Your task to perform on an android device: turn notification dots off Image 0: 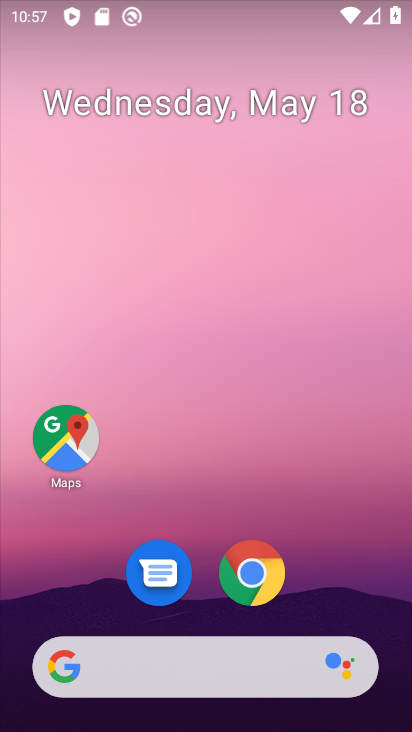
Step 0: click (176, 93)
Your task to perform on an android device: turn notification dots off Image 1: 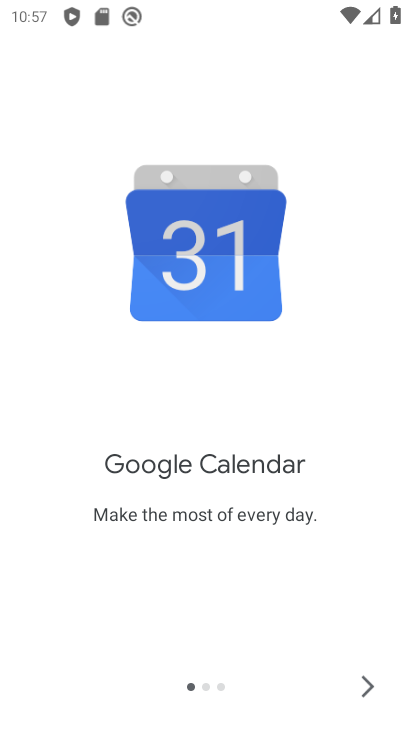
Step 1: click (368, 681)
Your task to perform on an android device: turn notification dots off Image 2: 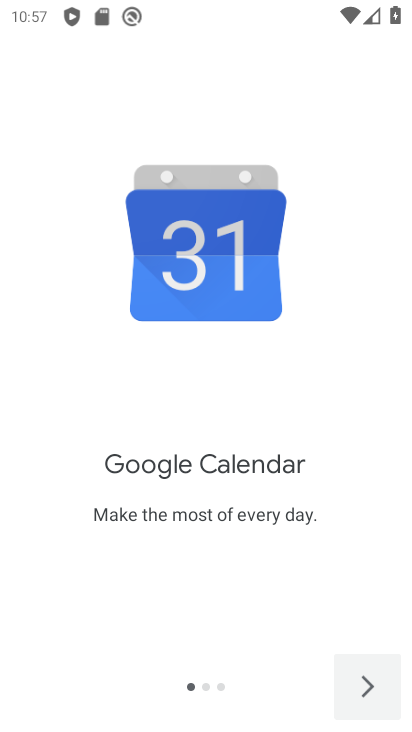
Step 2: click (368, 682)
Your task to perform on an android device: turn notification dots off Image 3: 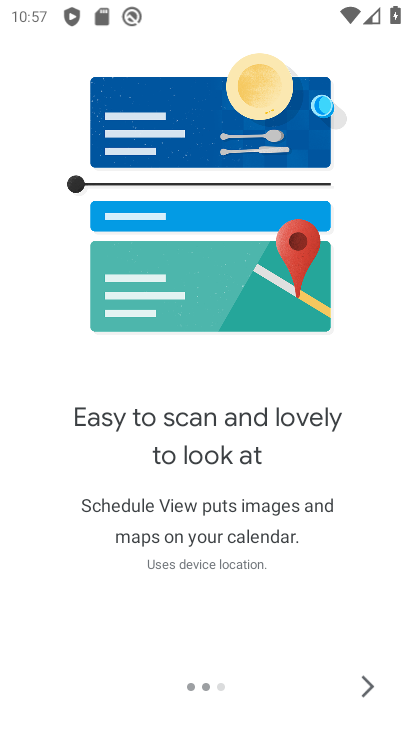
Step 3: click (368, 682)
Your task to perform on an android device: turn notification dots off Image 4: 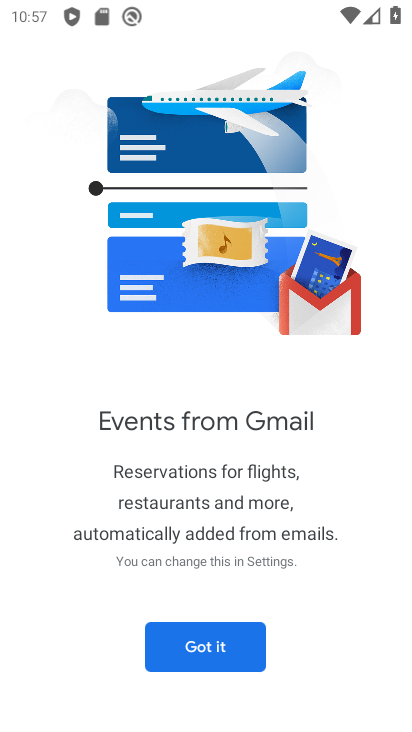
Step 4: click (219, 654)
Your task to perform on an android device: turn notification dots off Image 5: 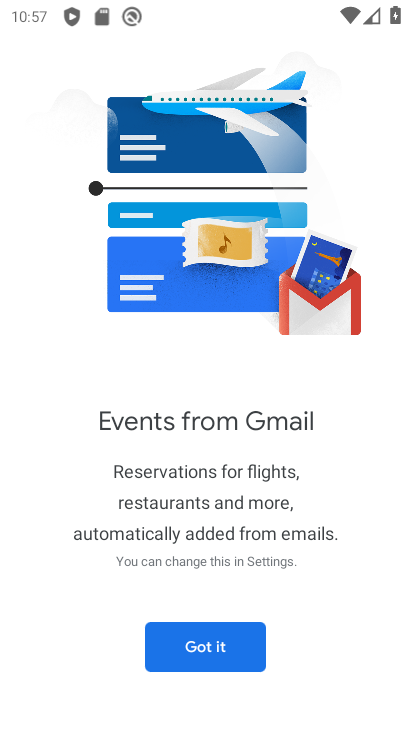
Step 5: click (219, 649)
Your task to perform on an android device: turn notification dots off Image 6: 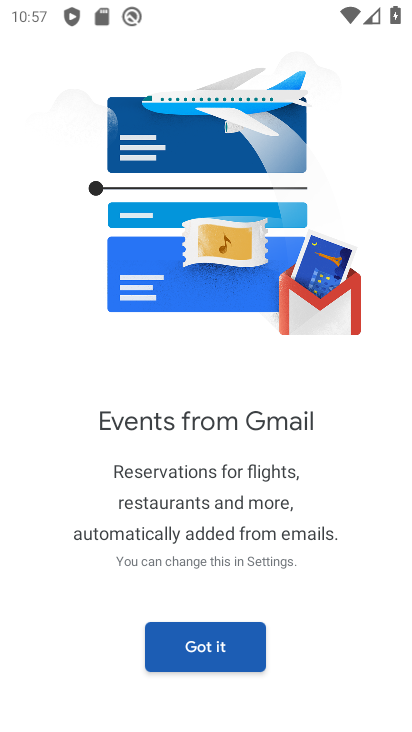
Step 6: click (219, 648)
Your task to perform on an android device: turn notification dots off Image 7: 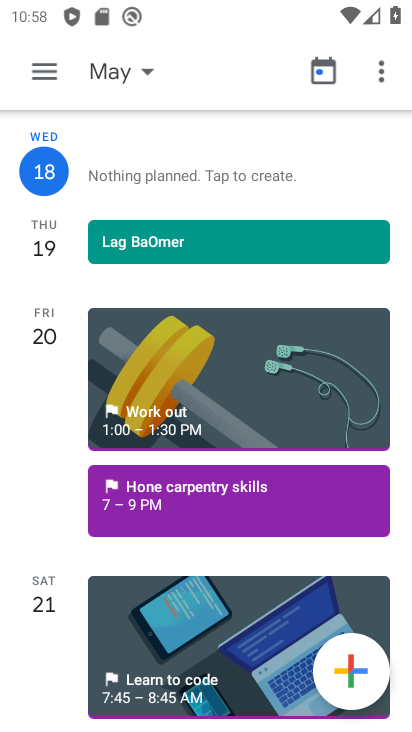
Step 7: press back button
Your task to perform on an android device: turn notification dots off Image 8: 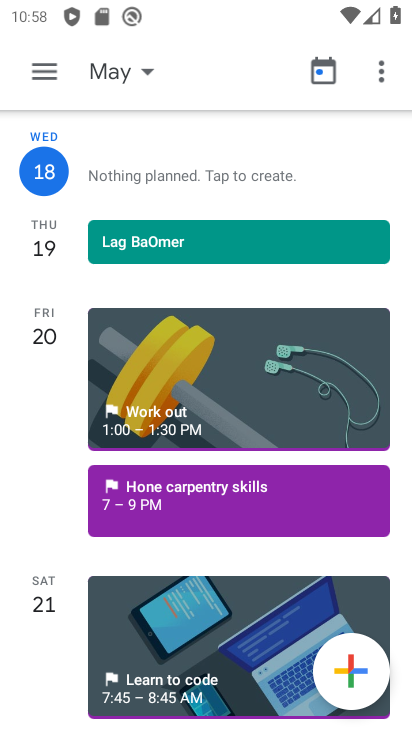
Step 8: press back button
Your task to perform on an android device: turn notification dots off Image 9: 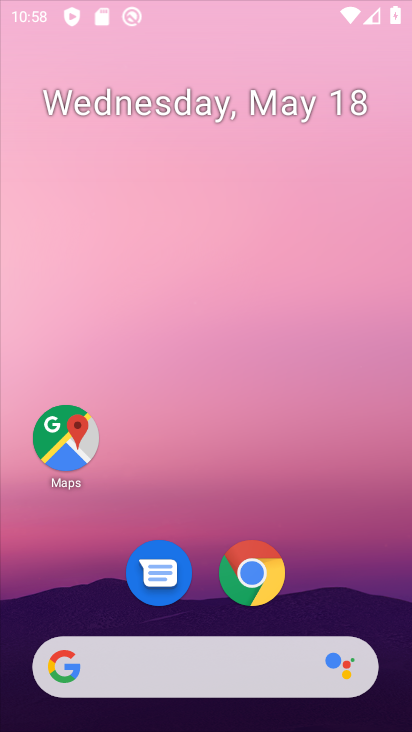
Step 9: press back button
Your task to perform on an android device: turn notification dots off Image 10: 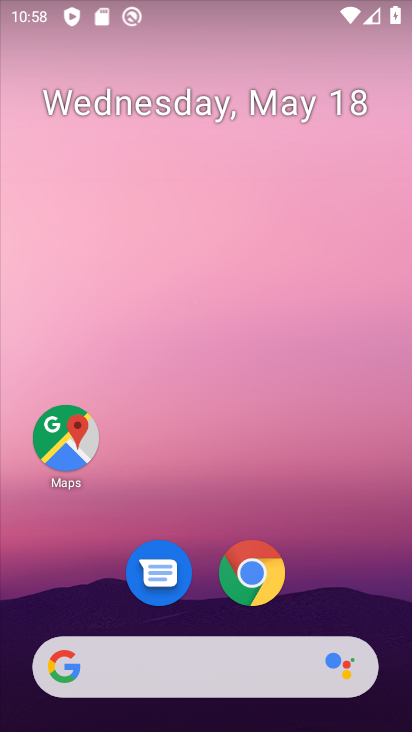
Step 10: drag from (329, 652) to (162, 101)
Your task to perform on an android device: turn notification dots off Image 11: 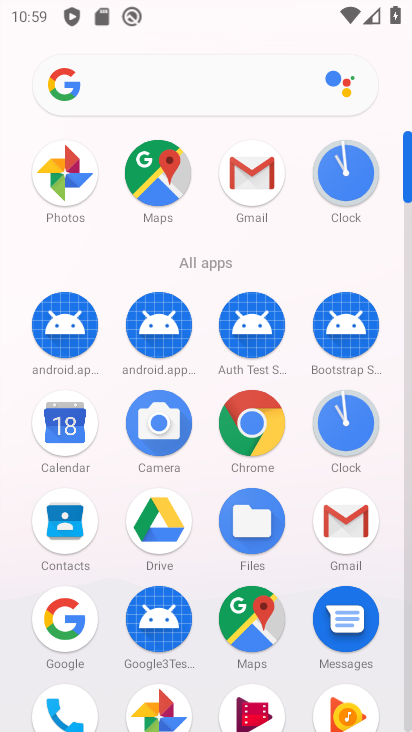
Step 11: click (409, 361)
Your task to perform on an android device: turn notification dots off Image 12: 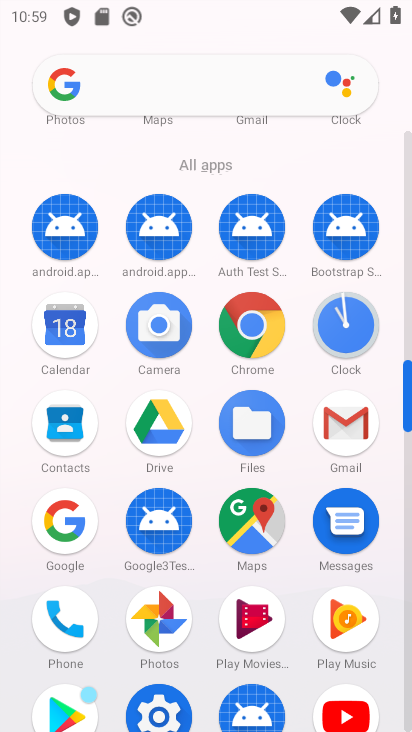
Step 12: click (163, 700)
Your task to perform on an android device: turn notification dots off Image 13: 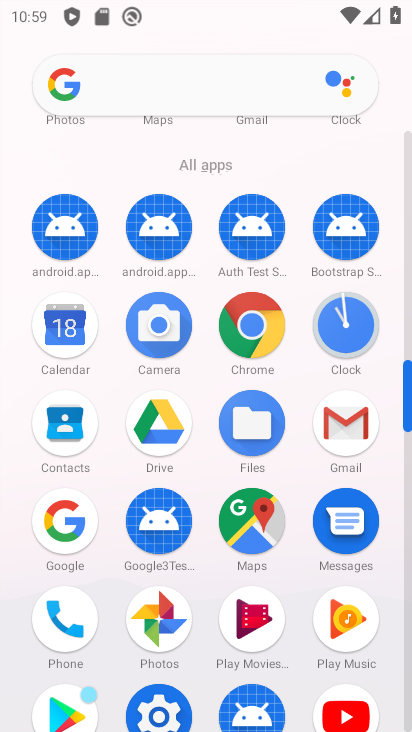
Step 13: click (162, 707)
Your task to perform on an android device: turn notification dots off Image 14: 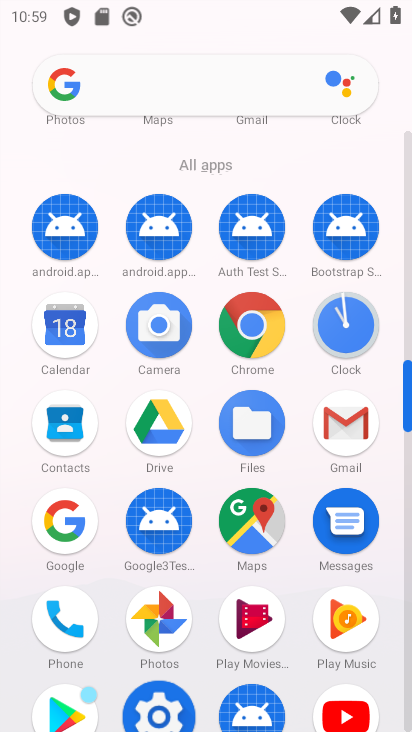
Step 14: click (162, 707)
Your task to perform on an android device: turn notification dots off Image 15: 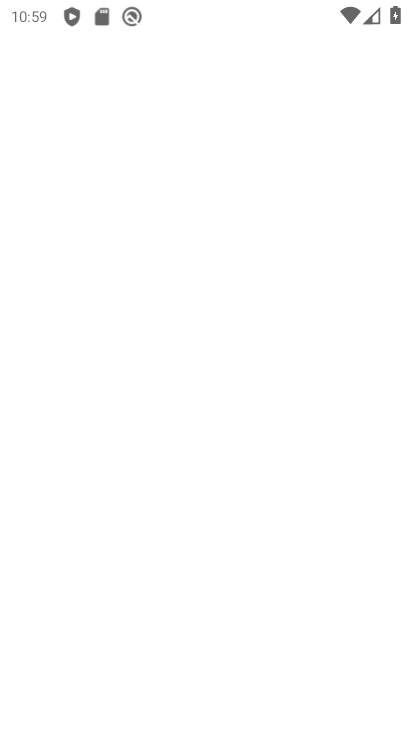
Step 15: click (156, 701)
Your task to perform on an android device: turn notification dots off Image 16: 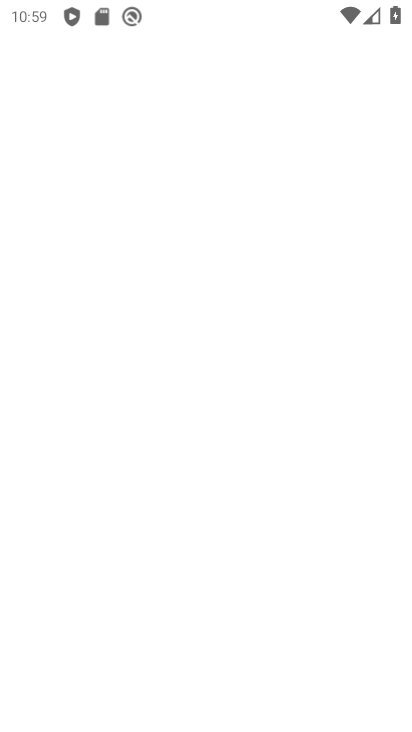
Step 16: click (155, 698)
Your task to perform on an android device: turn notification dots off Image 17: 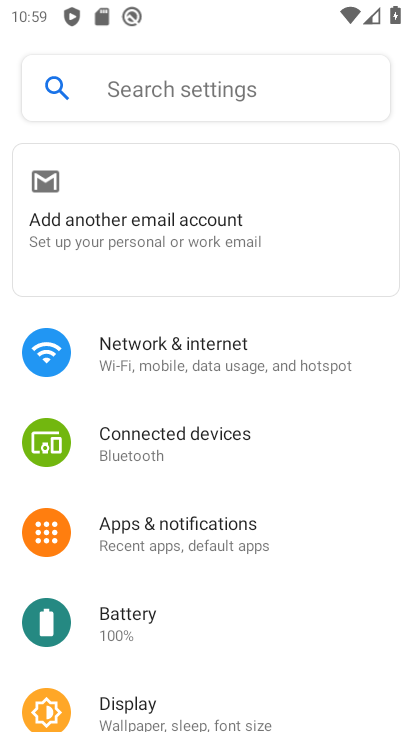
Step 17: drag from (138, 524) to (71, 138)
Your task to perform on an android device: turn notification dots off Image 18: 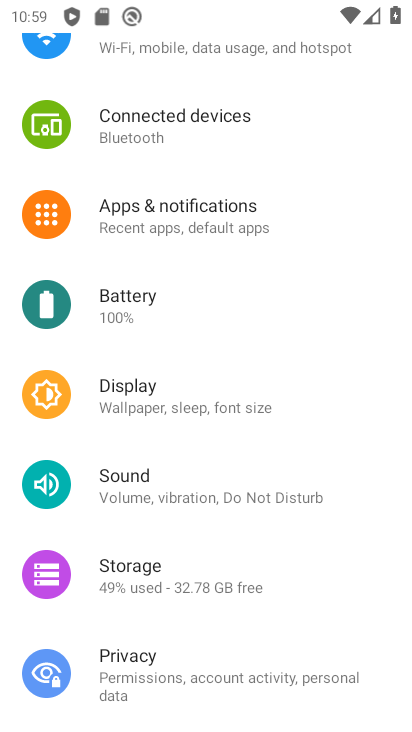
Step 18: drag from (192, 433) to (143, 164)
Your task to perform on an android device: turn notification dots off Image 19: 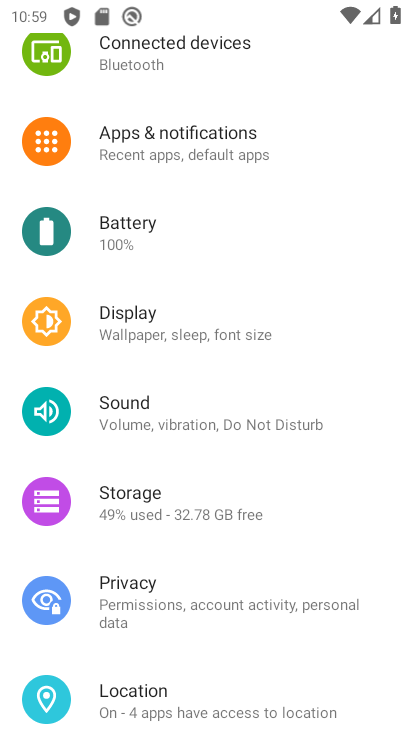
Step 19: drag from (167, 500) to (172, 146)
Your task to perform on an android device: turn notification dots off Image 20: 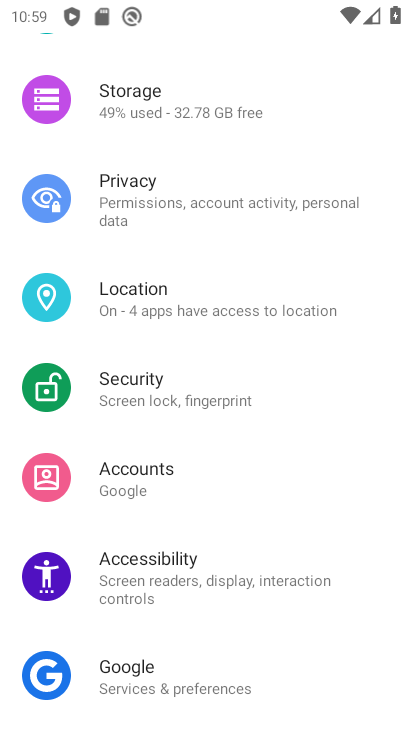
Step 20: drag from (164, 540) to (135, 42)
Your task to perform on an android device: turn notification dots off Image 21: 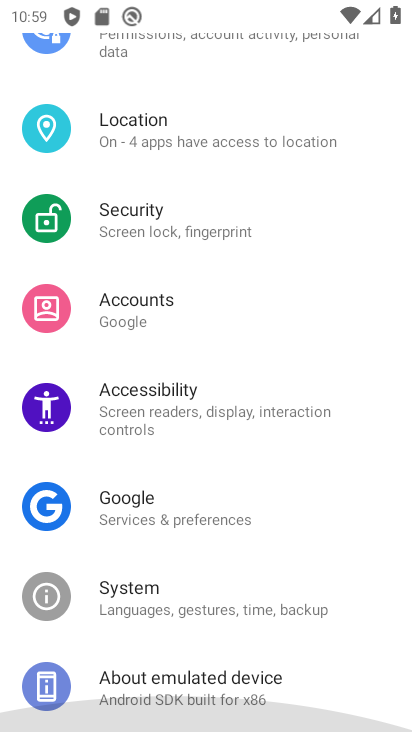
Step 21: drag from (168, 404) to (204, 43)
Your task to perform on an android device: turn notification dots off Image 22: 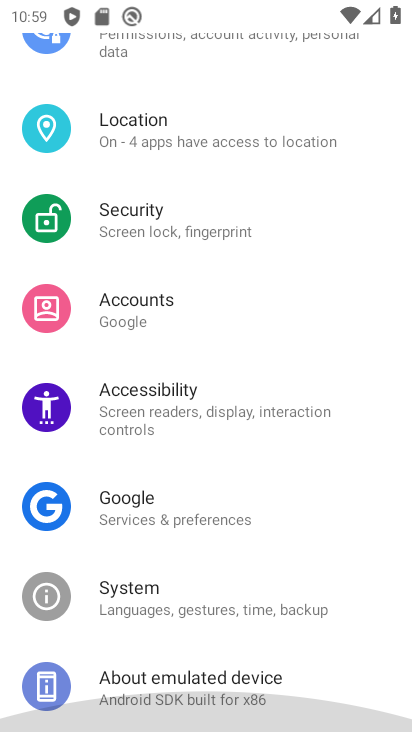
Step 22: drag from (281, 436) to (255, 46)
Your task to perform on an android device: turn notification dots off Image 23: 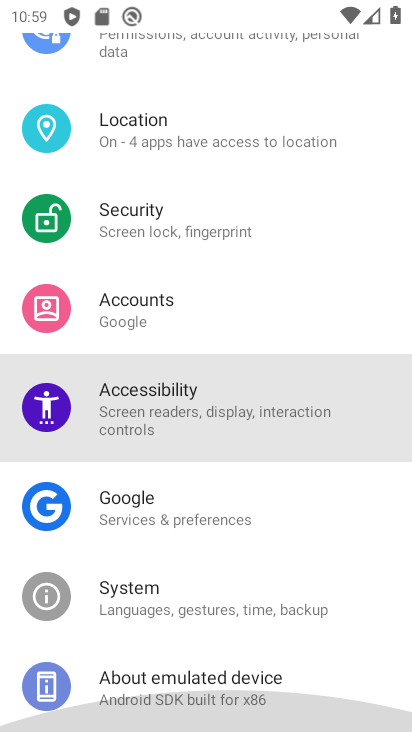
Step 23: drag from (198, 453) to (171, 109)
Your task to perform on an android device: turn notification dots off Image 24: 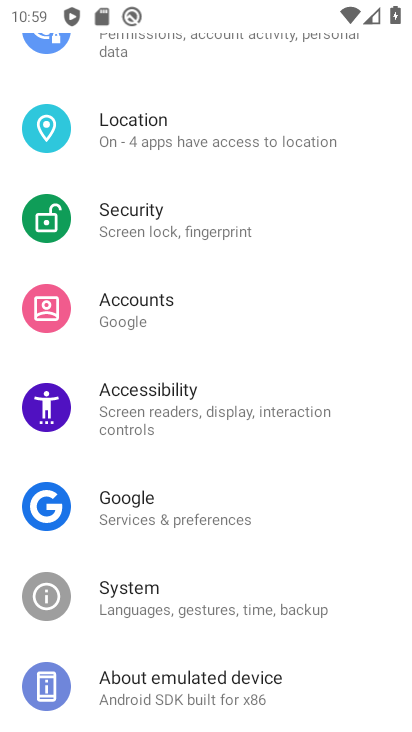
Step 24: drag from (164, 292) to (253, 566)
Your task to perform on an android device: turn notification dots off Image 25: 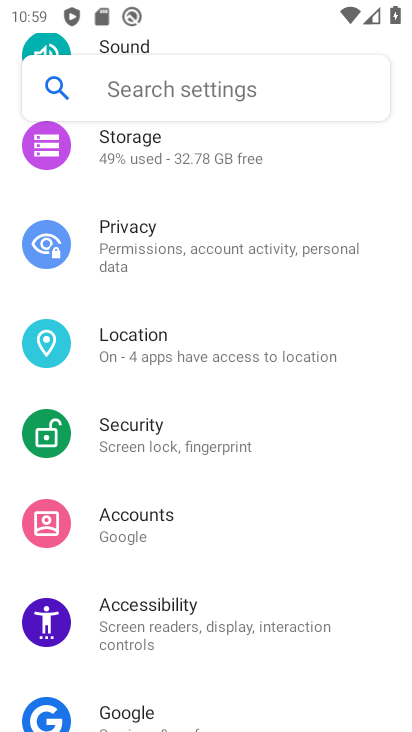
Step 25: drag from (179, 231) to (296, 702)
Your task to perform on an android device: turn notification dots off Image 26: 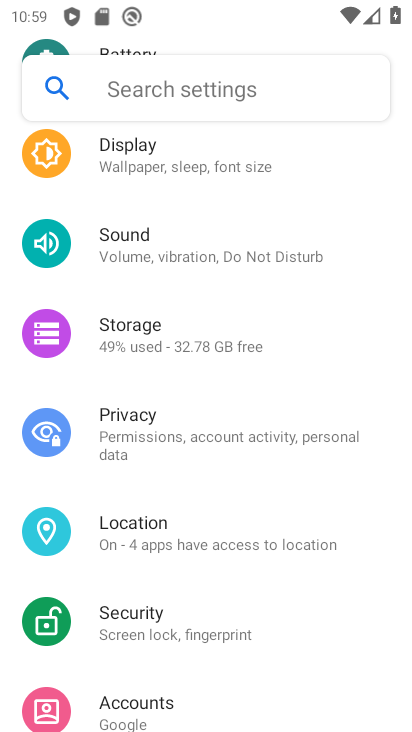
Step 26: drag from (141, 304) to (219, 622)
Your task to perform on an android device: turn notification dots off Image 27: 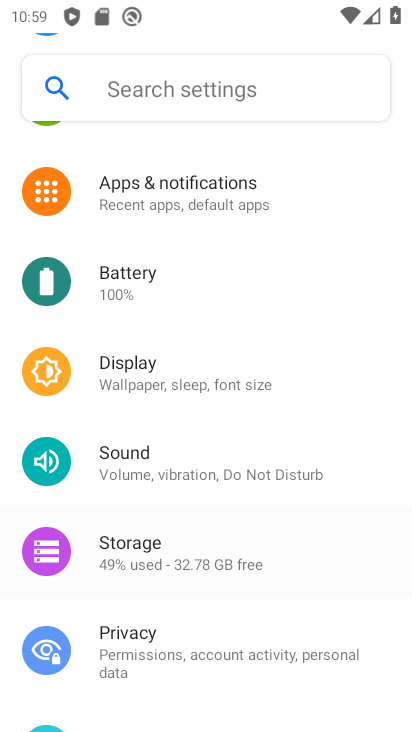
Step 27: drag from (175, 217) to (266, 583)
Your task to perform on an android device: turn notification dots off Image 28: 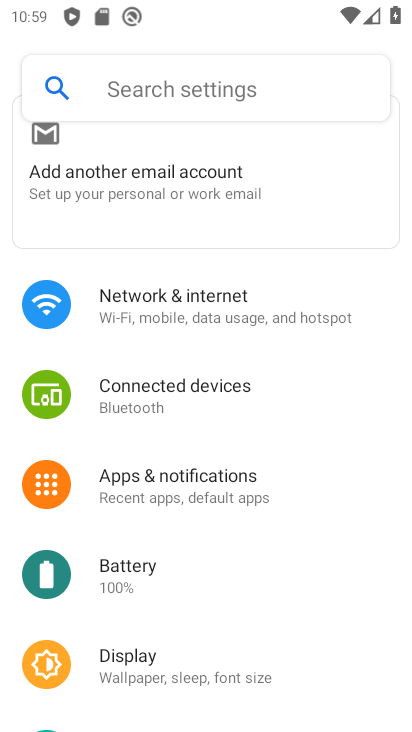
Step 28: drag from (202, 334) to (280, 567)
Your task to perform on an android device: turn notification dots off Image 29: 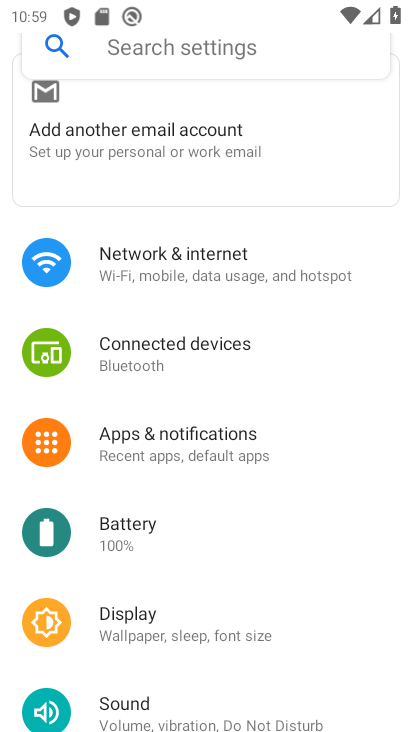
Step 29: drag from (229, 471) to (273, 574)
Your task to perform on an android device: turn notification dots off Image 30: 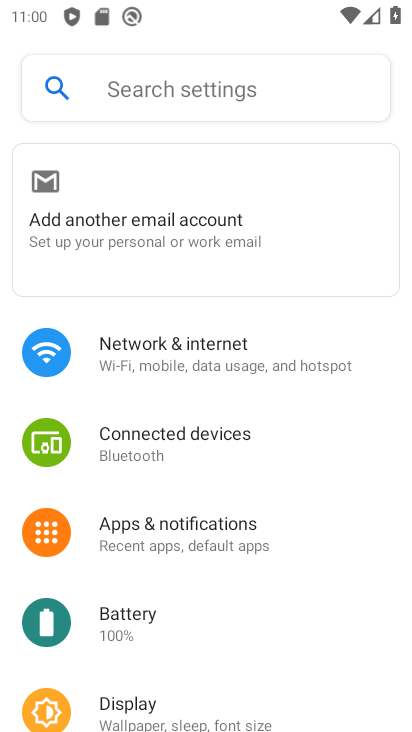
Step 30: click (208, 532)
Your task to perform on an android device: turn notification dots off Image 31: 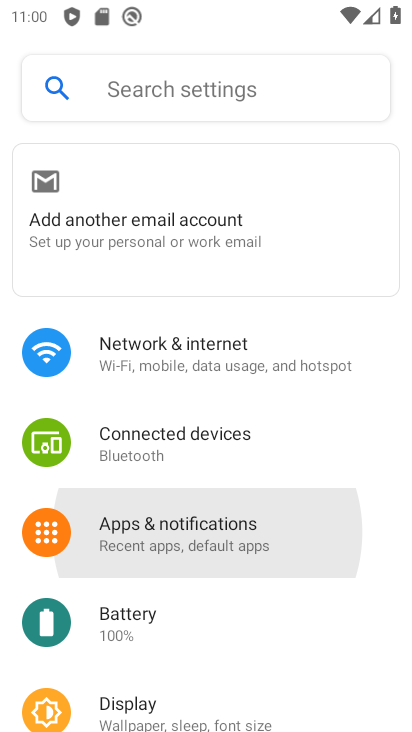
Step 31: click (204, 528)
Your task to perform on an android device: turn notification dots off Image 32: 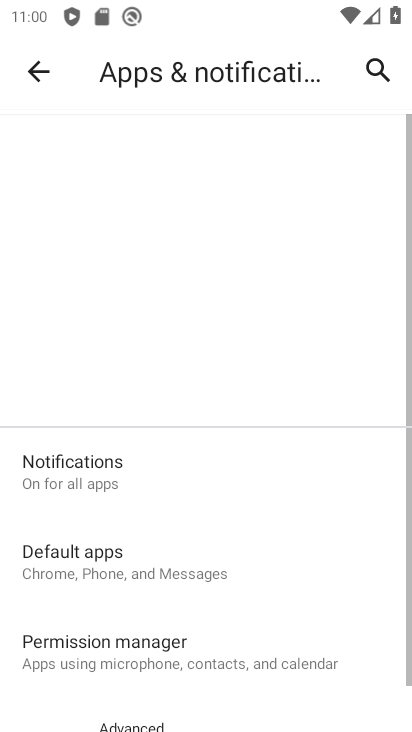
Step 32: drag from (145, 470) to (102, 87)
Your task to perform on an android device: turn notification dots off Image 33: 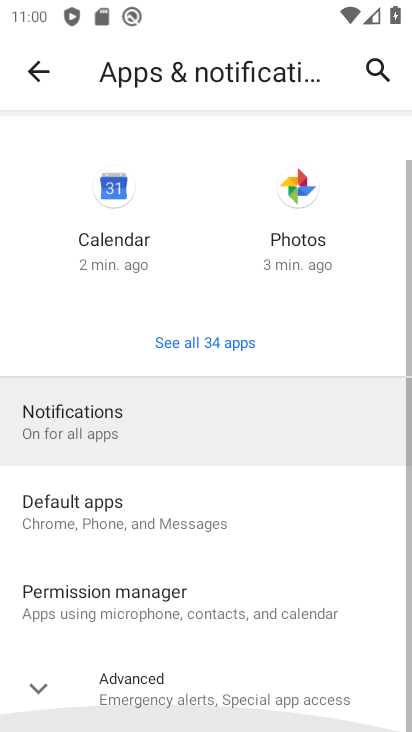
Step 33: drag from (127, 447) to (127, 94)
Your task to perform on an android device: turn notification dots off Image 34: 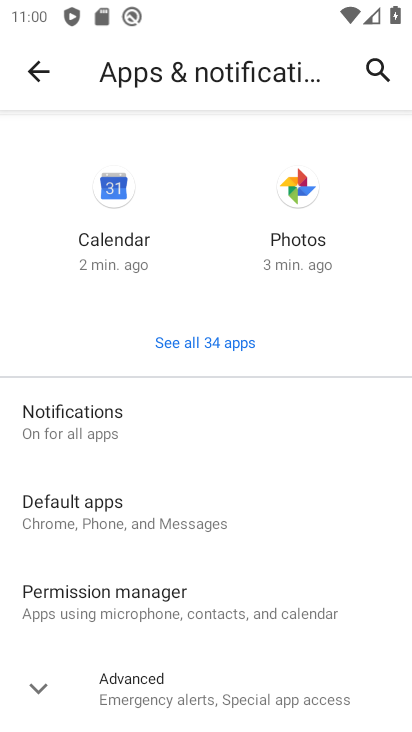
Step 34: click (77, 414)
Your task to perform on an android device: turn notification dots off Image 35: 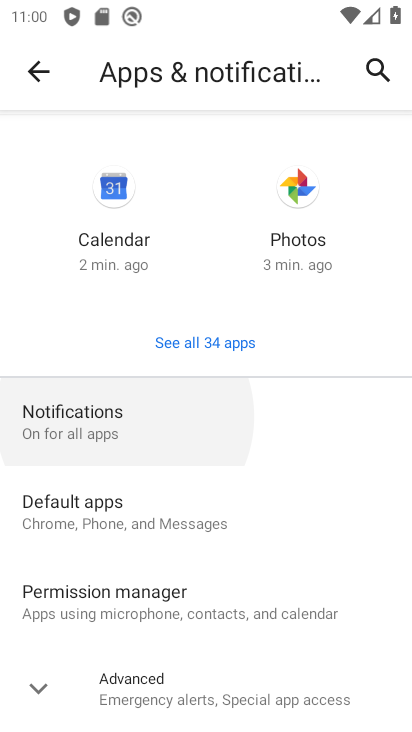
Step 35: click (77, 414)
Your task to perform on an android device: turn notification dots off Image 36: 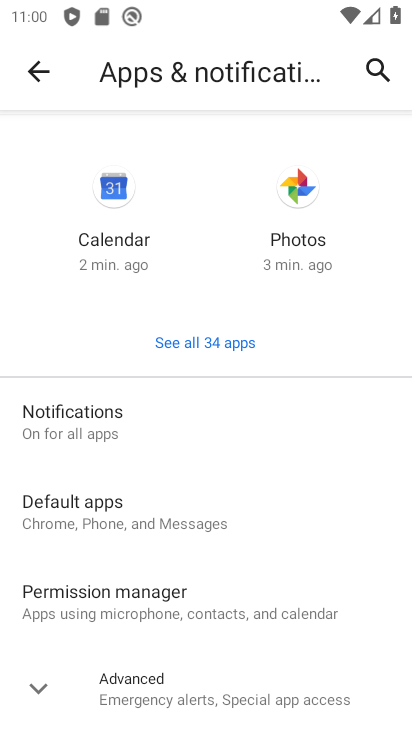
Step 36: click (77, 414)
Your task to perform on an android device: turn notification dots off Image 37: 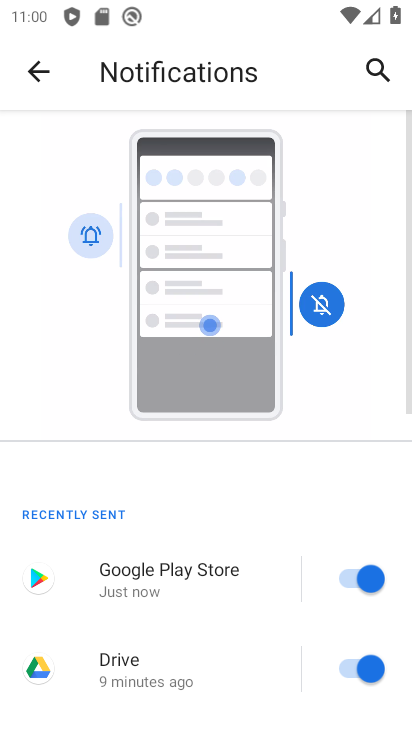
Step 37: drag from (226, 554) to (209, 107)
Your task to perform on an android device: turn notification dots off Image 38: 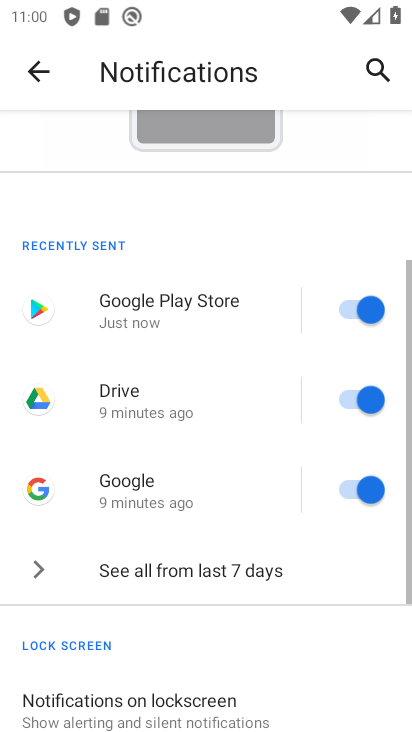
Step 38: drag from (230, 398) to (201, 31)
Your task to perform on an android device: turn notification dots off Image 39: 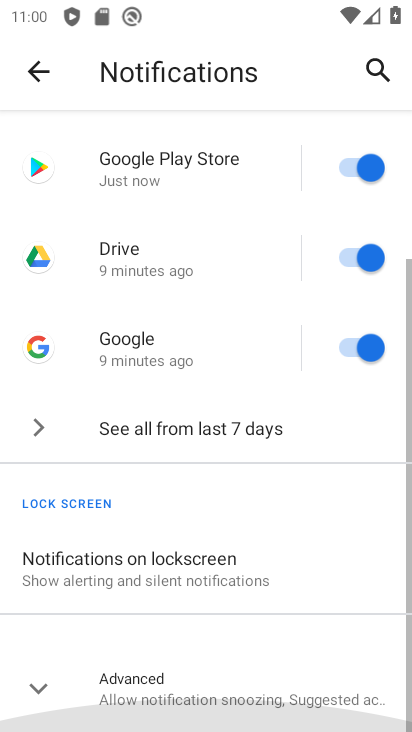
Step 39: drag from (244, 372) to (196, 143)
Your task to perform on an android device: turn notification dots off Image 40: 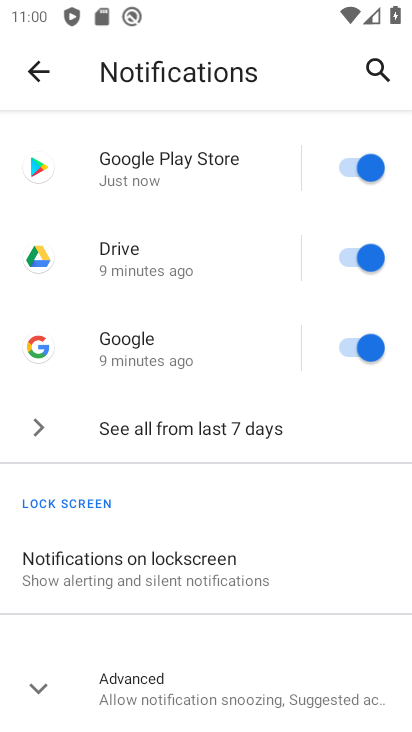
Step 40: click (142, 687)
Your task to perform on an android device: turn notification dots off Image 41: 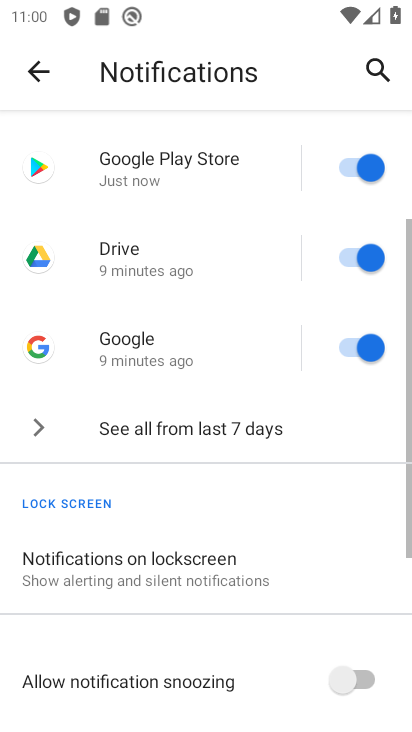
Step 41: drag from (185, 493) to (167, 166)
Your task to perform on an android device: turn notification dots off Image 42: 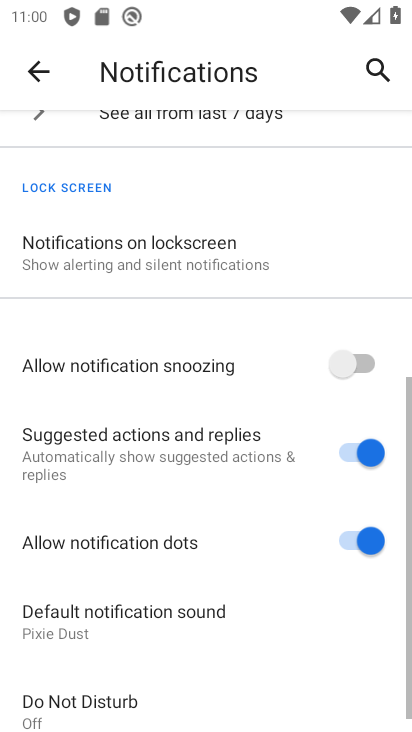
Step 42: drag from (210, 394) to (121, 12)
Your task to perform on an android device: turn notification dots off Image 43: 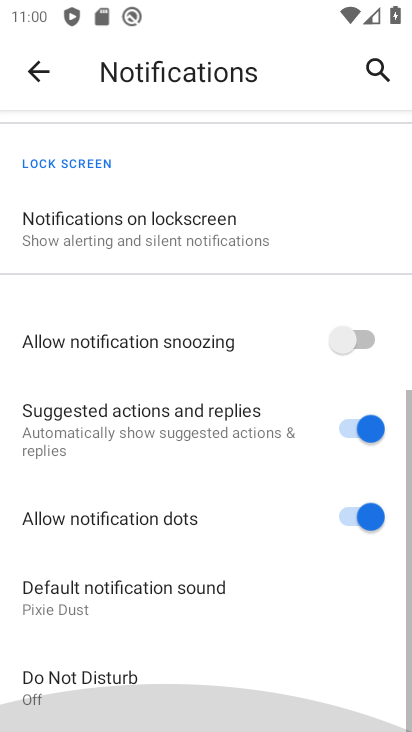
Step 43: drag from (139, 428) to (117, 68)
Your task to perform on an android device: turn notification dots off Image 44: 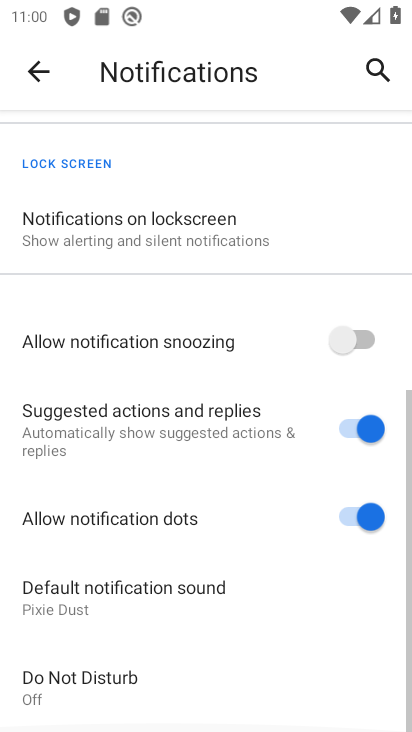
Step 44: drag from (170, 499) to (130, 54)
Your task to perform on an android device: turn notification dots off Image 45: 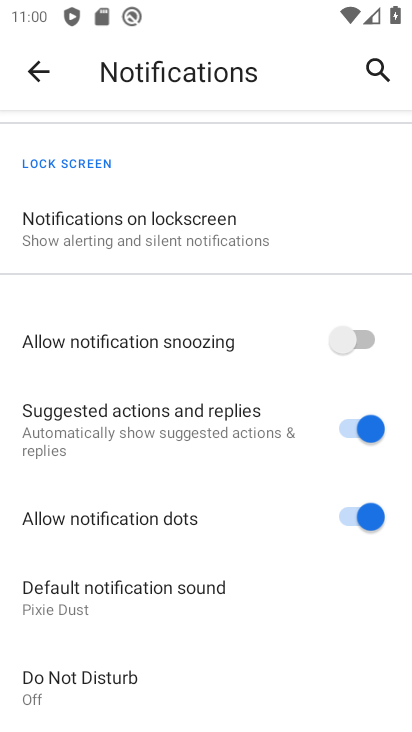
Step 45: click (357, 517)
Your task to perform on an android device: turn notification dots off Image 46: 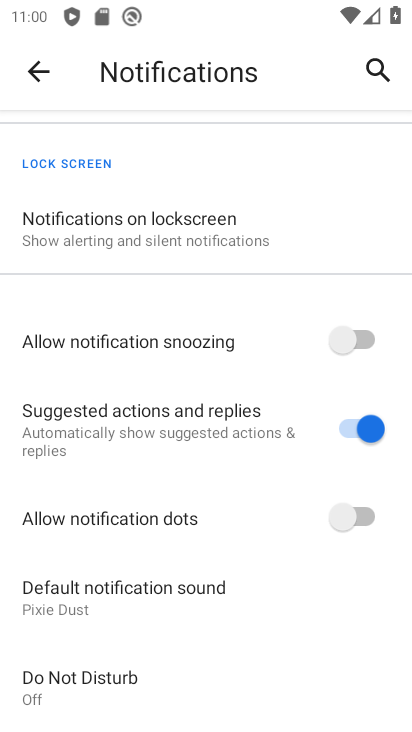
Step 46: task complete